Your task to perform on an android device: turn on location history Image 0: 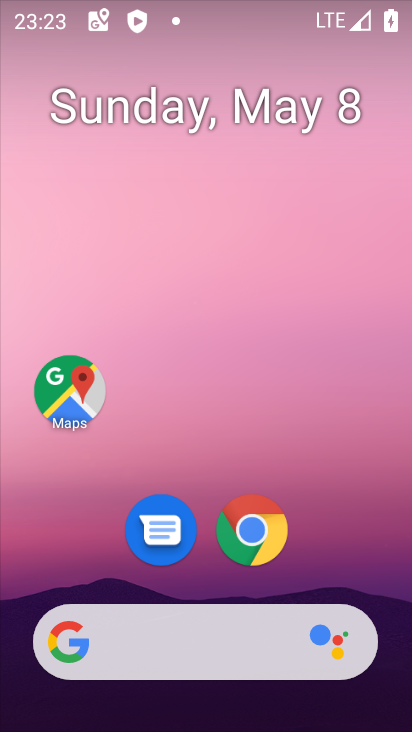
Step 0: drag from (367, 552) to (352, 175)
Your task to perform on an android device: turn on location history Image 1: 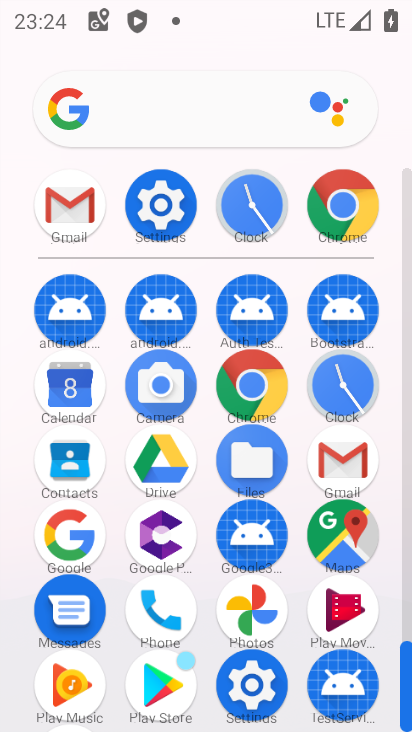
Step 1: click (137, 197)
Your task to perform on an android device: turn on location history Image 2: 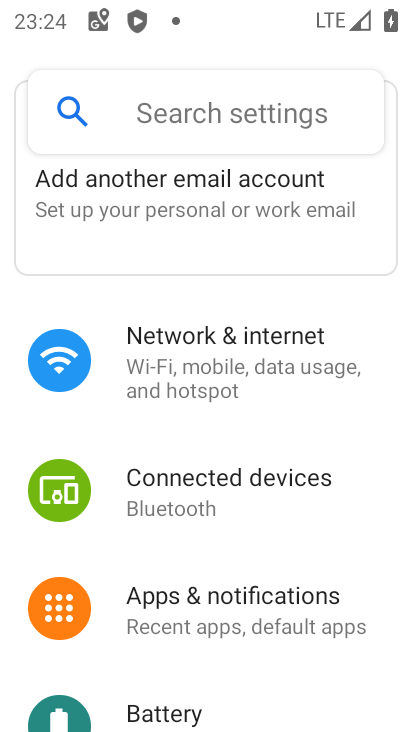
Step 2: drag from (249, 705) to (259, 355)
Your task to perform on an android device: turn on location history Image 3: 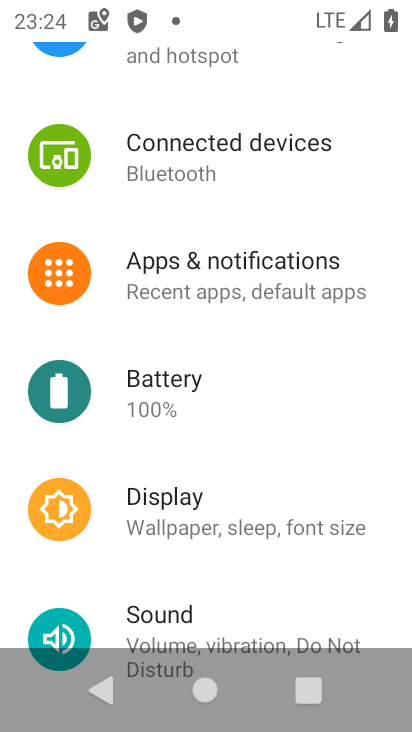
Step 3: drag from (286, 577) to (293, 224)
Your task to perform on an android device: turn on location history Image 4: 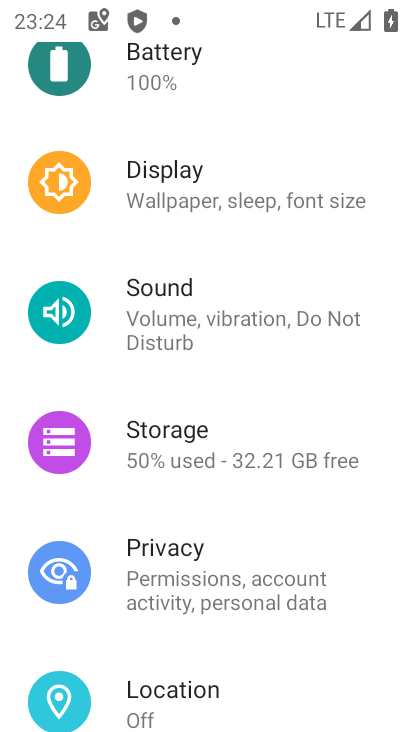
Step 4: click (261, 681)
Your task to perform on an android device: turn on location history Image 5: 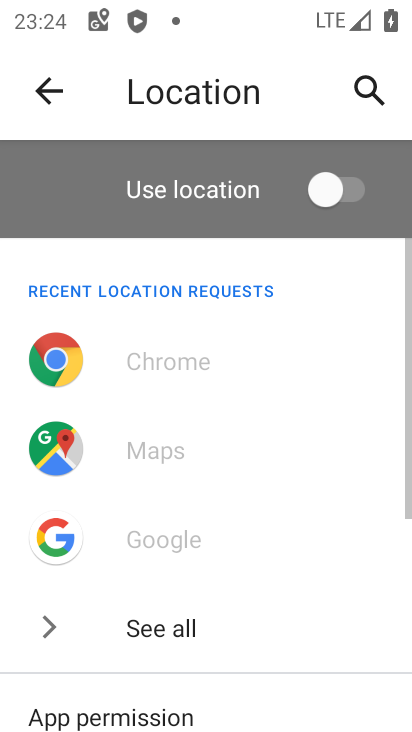
Step 5: drag from (271, 644) to (308, 237)
Your task to perform on an android device: turn on location history Image 6: 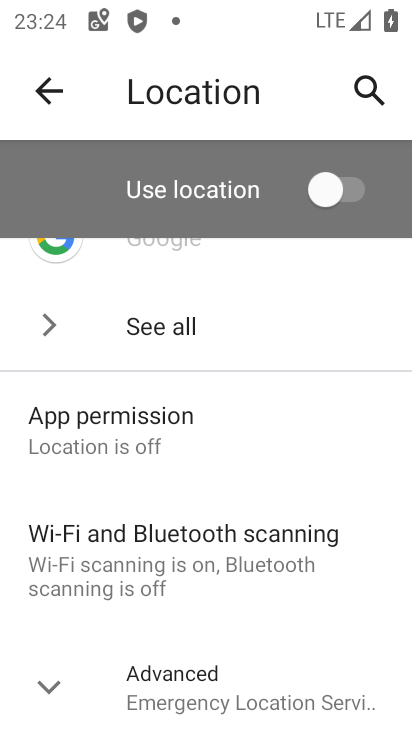
Step 6: click (310, 677)
Your task to perform on an android device: turn on location history Image 7: 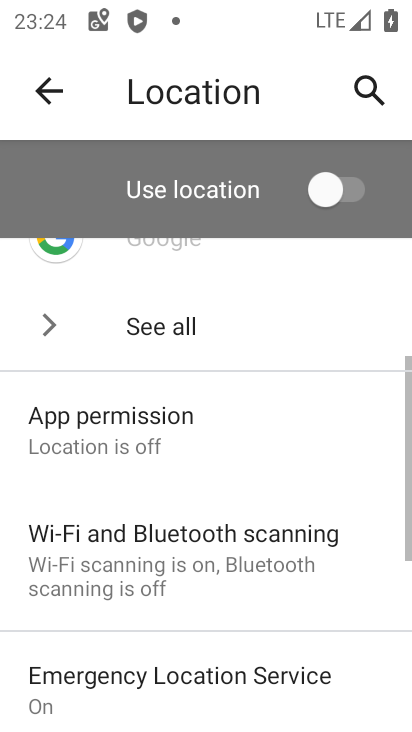
Step 7: drag from (309, 677) to (316, 297)
Your task to perform on an android device: turn on location history Image 8: 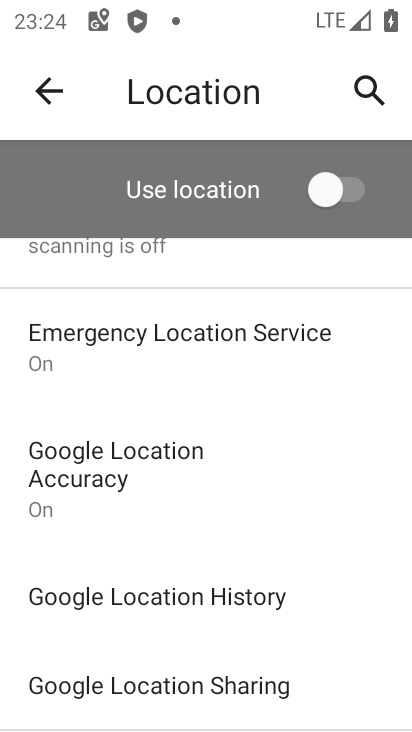
Step 8: click (303, 598)
Your task to perform on an android device: turn on location history Image 9: 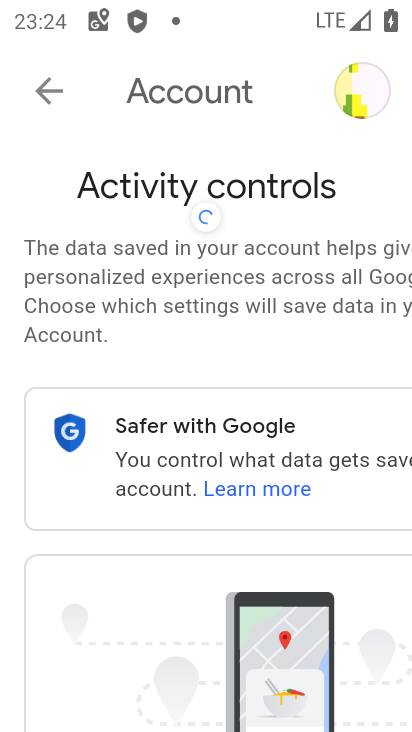
Step 9: task complete